Your task to perform on an android device: Open calendar and show me the fourth week of next month Image 0: 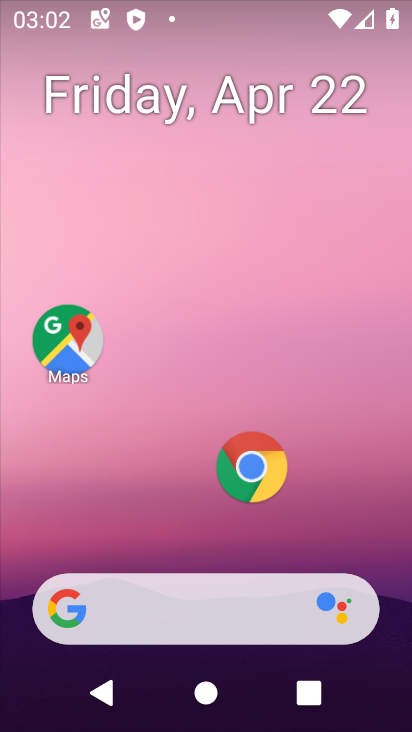
Step 0: drag from (182, 355) to (219, 61)
Your task to perform on an android device: Open calendar and show me the fourth week of next month Image 1: 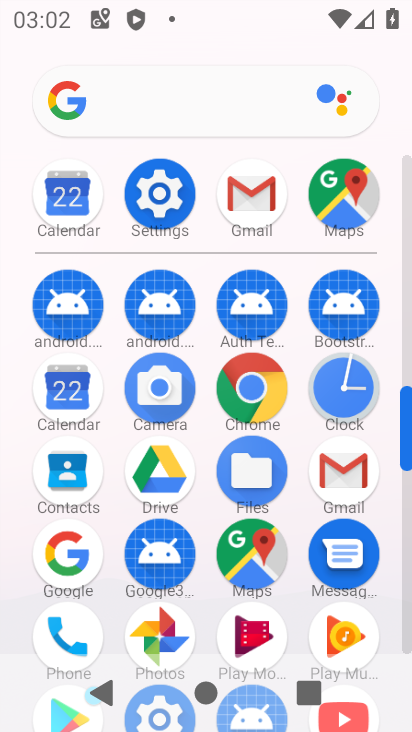
Step 1: click (57, 392)
Your task to perform on an android device: Open calendar and show me the fourth week of next month Image 2: 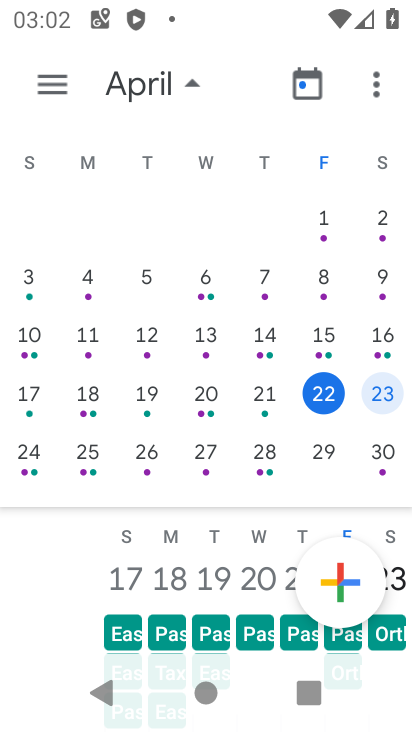
Step 2: click (176, 95)
Your task to perform on an android device: Open calendar and show me the fourth week of next month Image 3: 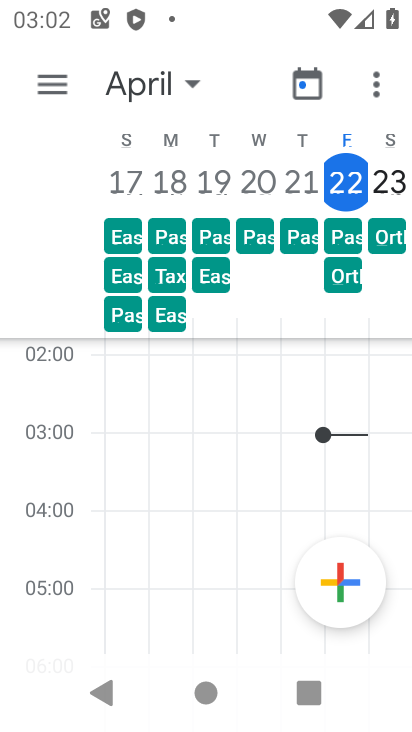
Step 3: drag from (374, 260) to (20, 273)
Your task to perform on an android device: Open calendar and show me the fourth week of next month Image 4: 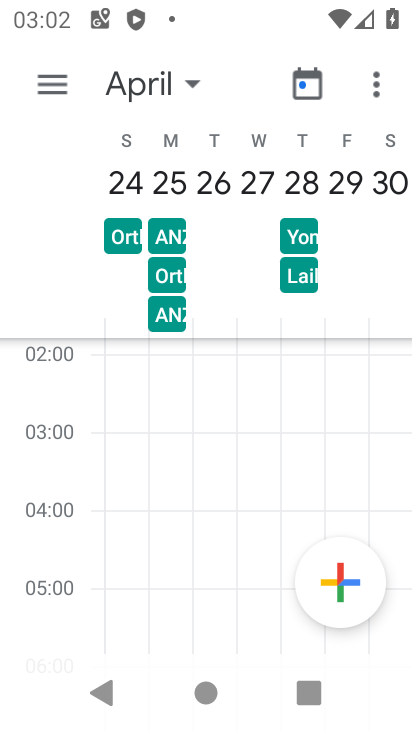
Step 4: click (179, 82)
Your task to perform on an android device: Open calendar and show me the fourth week of next month Image 5: 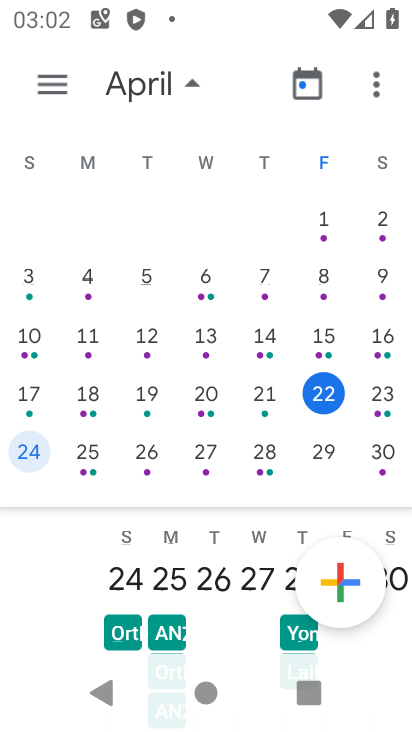
Step 5: drag from (385, 254) to (15, 241)
Your task to perform on an android device: Open calendar and show me the fourth week of next month Image 6: 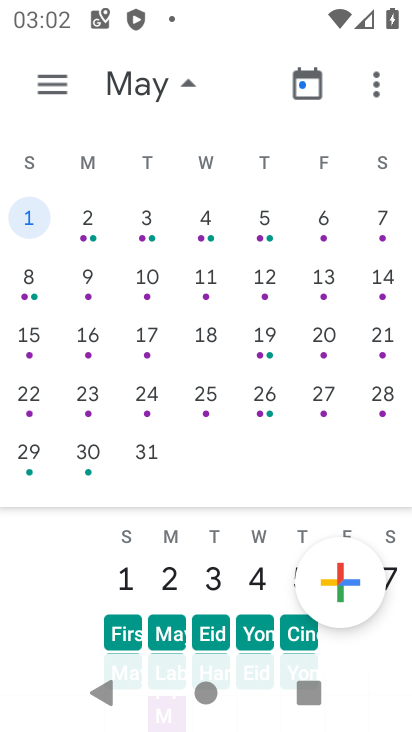
Step 6: click (196, 395)
Your task to perform on an android device: Open calendar and show me the fourth week of next month Image 7: 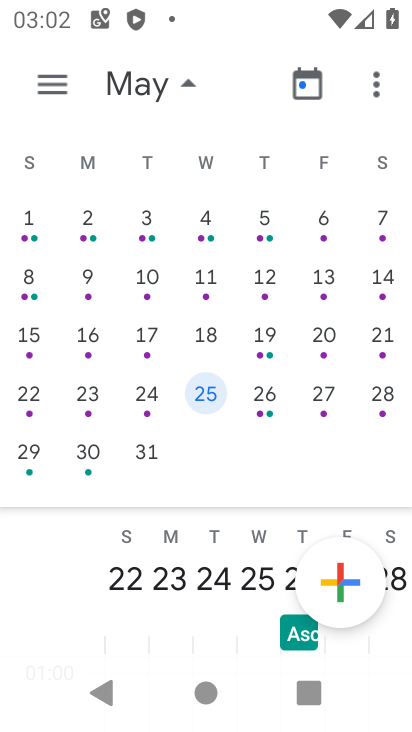
Step 7: click (47, 85)
Your task to perform on an android device: Open calendar and show me the fourth week of next month Image 8: 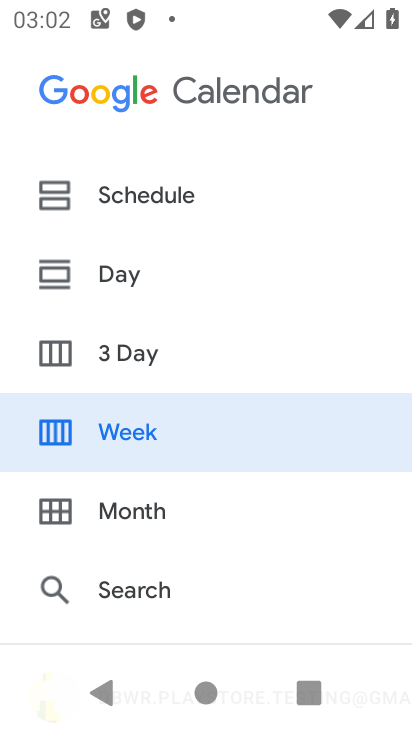
Step 8: click (160, 430)
Your task to perform on an android device: Open calendar and show me the fourth week of next month Image 9: 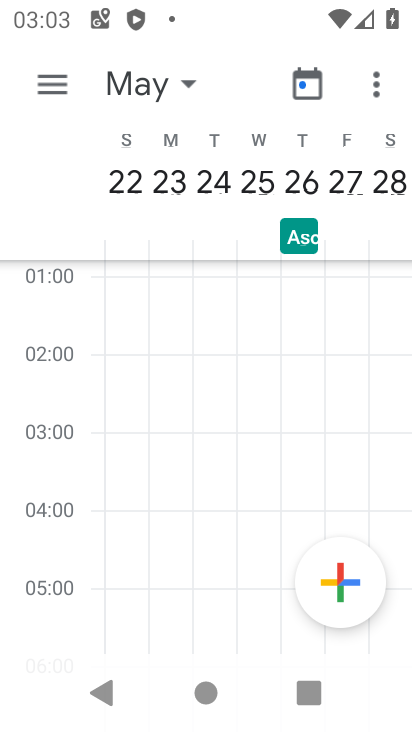
Step 9: task complete